Your task to perform on an android device: open wifi settings Image 0: 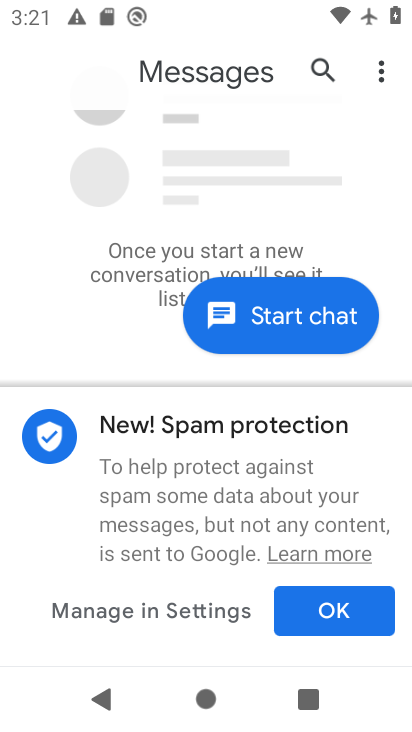
Step 0: press home button
Your task to perform on an android device: open wifi settings Image 1: 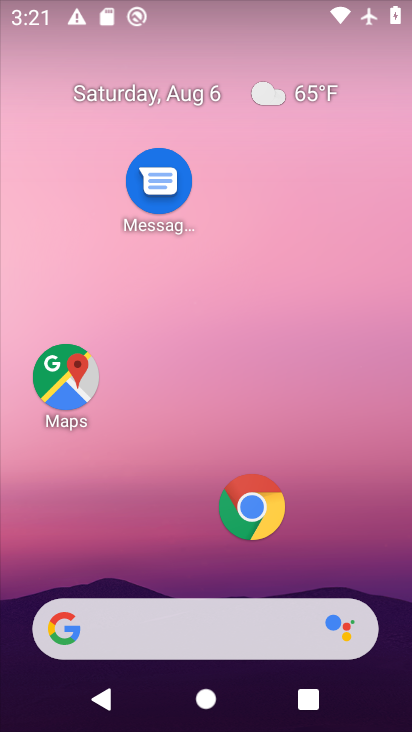
Step 1: drag from (200, 561) to (217, 152)
Your task to perform on an android device: open wifi settings Image 2: 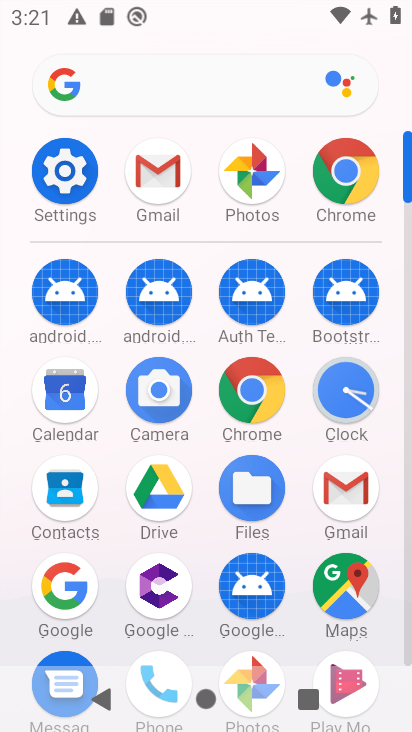
Step 2: click (69, 188)
Your task to perform on an android device: open wifi settings Image 3: 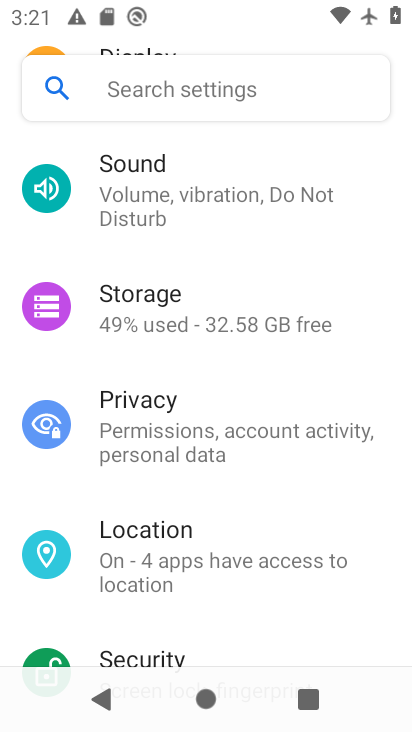
Step 3: drag from (255, 204) to (278, 723)
Your task to perform on an android device: open wifi settings Image 4: 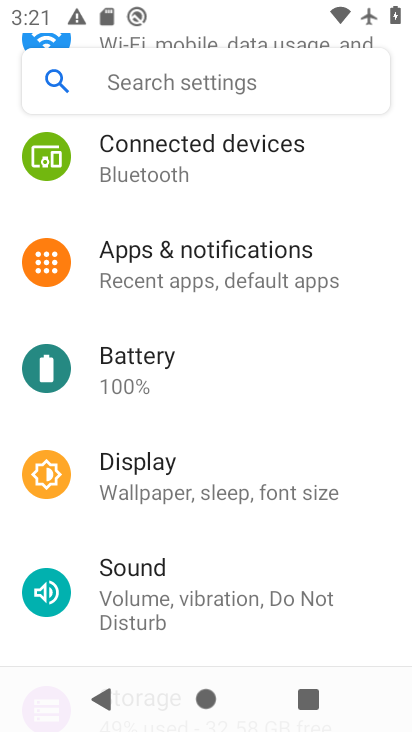
Step 4: drag from (206, 224) to (217, 716)
Your task to perform on an android device: open wifi settings Image 5: 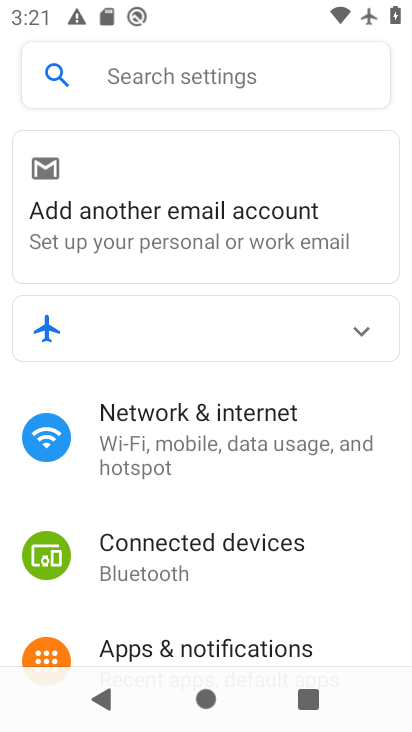
Step 5: click (190, 440)
Your task to perform on an android device: open wifi settings Image 6: 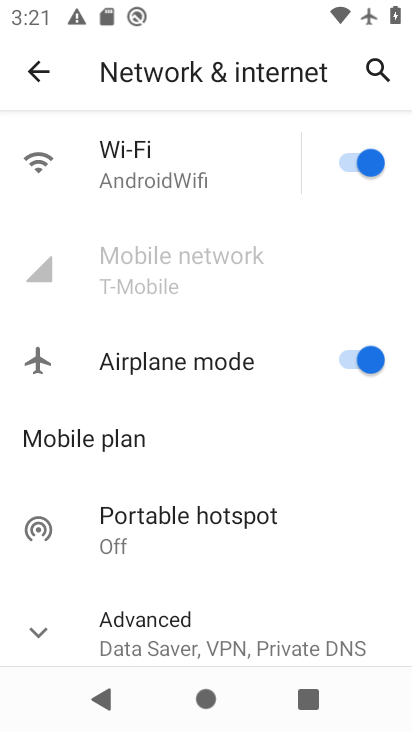
Step 6: click (54, 157)
Your task to perform on an android device: open wifi settings Image 7: 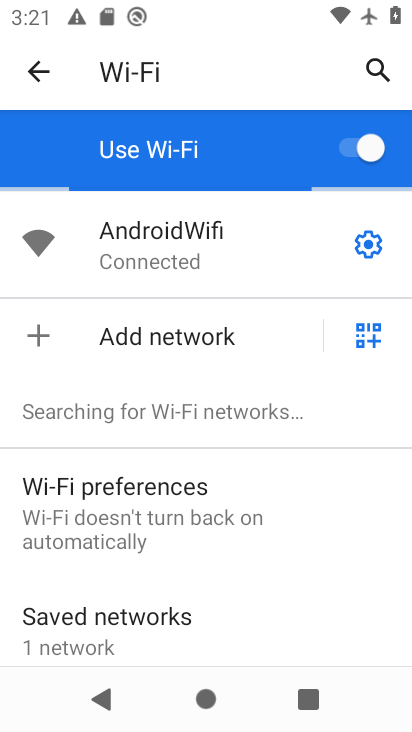
Step 7: task complete